Your task to perform on an android device: turn off notifications in google photos Image 0: 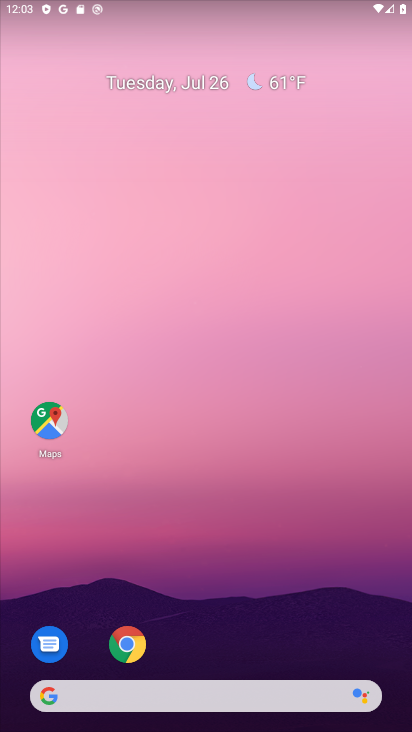
Step 0: drag from (287, 623) to (296, 1)
Your task to perform on an android device: turn off notifications in google photos Image 1: 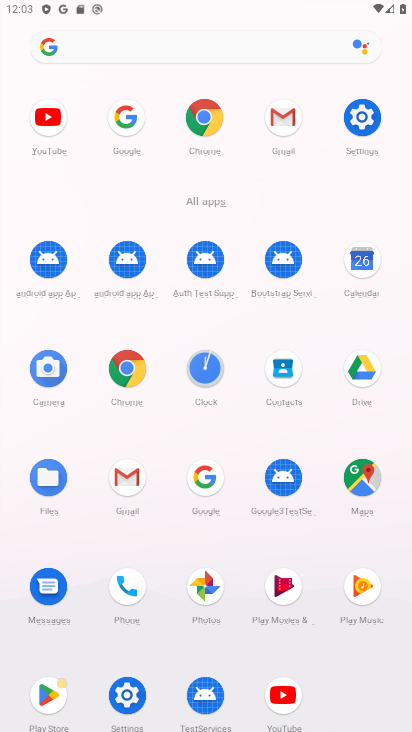
Step 1: click (213, 585)
Your task to perform on an android device: turn off notifications in google photos Image 2: 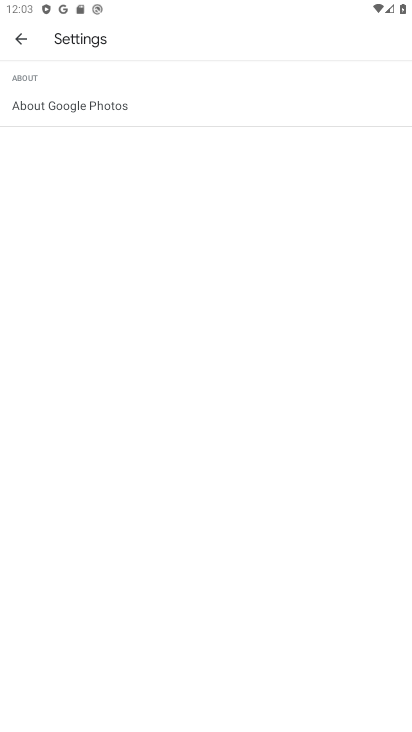
Step 2: click (21, 32)
Your task to perform on an android device: turn off notifications in google photos Image 3: 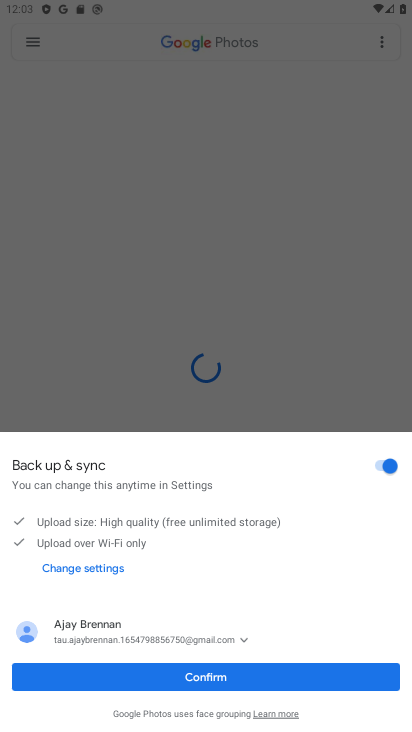
Step 3: click (169, 674)
Your task to perform on an android device: turn off notifications in google photos Image 4: 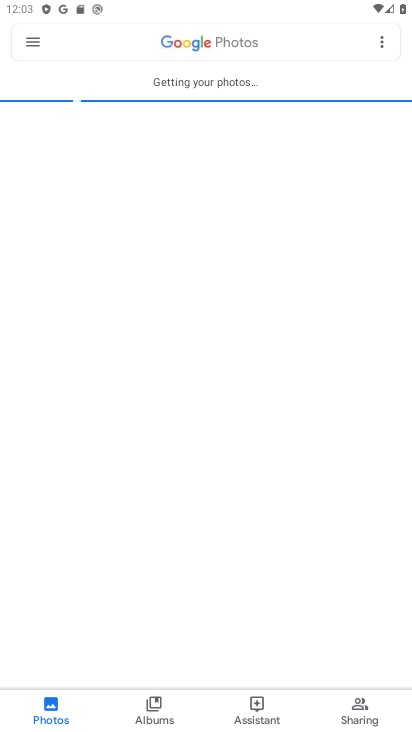
Step 4: click (21, 43)
Your task to perform on an android device: turn off notifications in google photos Image 5: 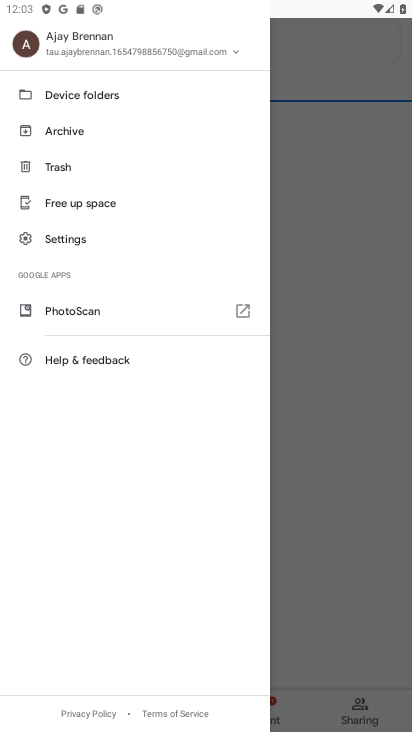
Step 5: click (53, 245)
Your task to perform on an android device: turn off notifications in google photos Image 6: 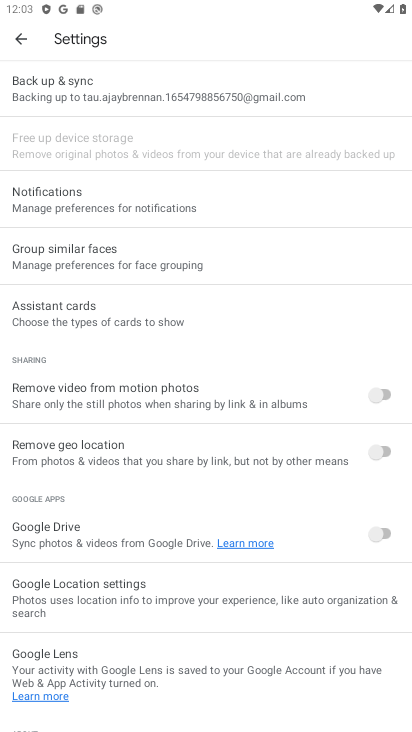
Step 6: click (73, 202)
Your task to perform on an android device: turn off notifications in google photos Image 7: 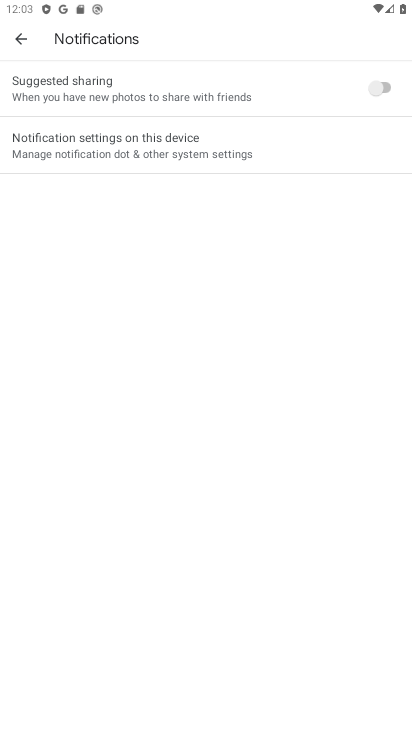
Step 7: click (206, 157)
Your task to perform on an android device: turn off notifications in google photos Image 8: 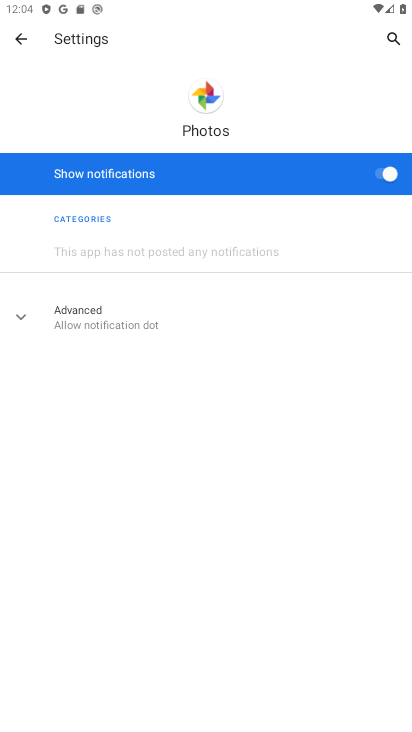
Step 8: click (362, 182)
Your task to perform on an android device: turn off notifications in google photos Image 9: 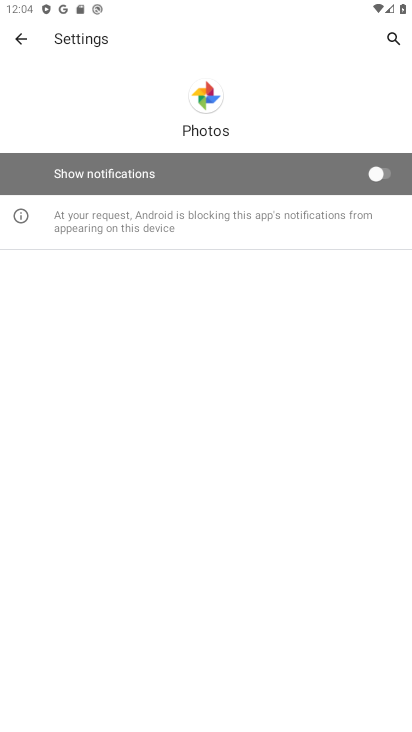
Step 9: task complete